Your task to perform on an android device: delete a single message in the gmail app Image 0: 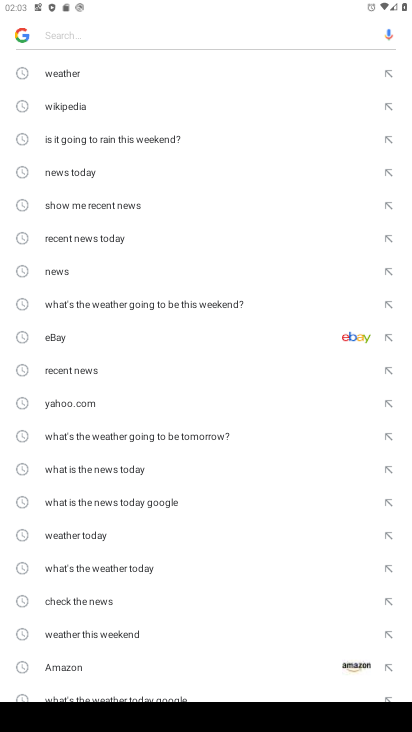
Step 0: press home button
Your task to perform on an android device: delete a single message in the gmail app Image 1: 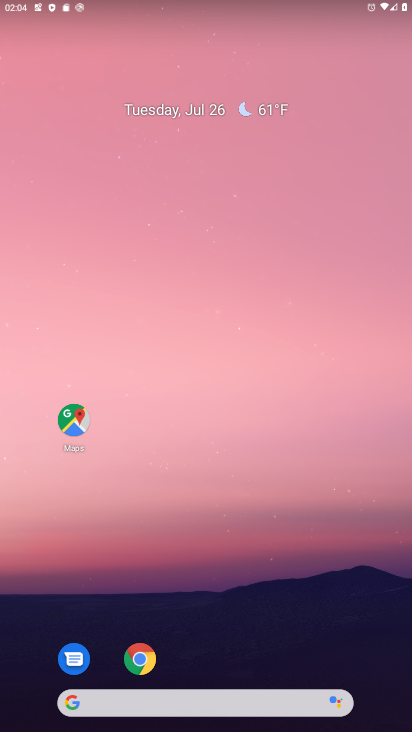
Step 1: drag from (309, 585) to (277, 102)
Your task to perform on an android device: delete a single message in the gmail app Image 2: 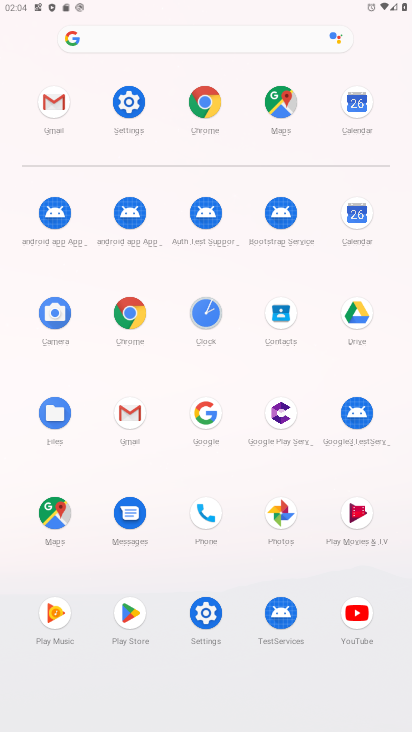
Step 2: click (43, 112)
Your task to perform on an android device: delete a single message in the gmail app Image 3: 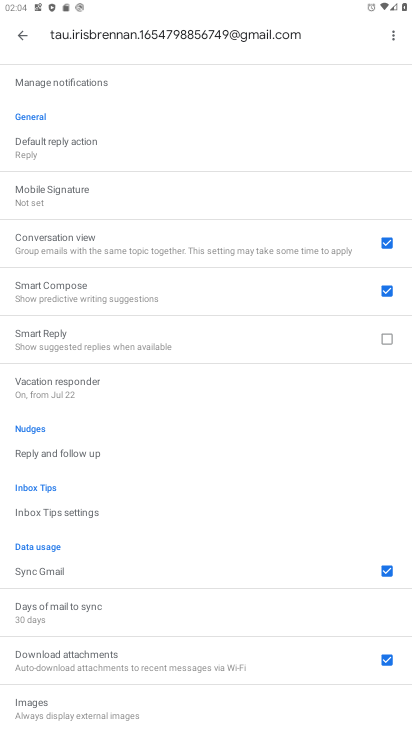
Step 3: click (21, 35)
Your task to perform on an android device: delete a single message in the gmail app Image 4: 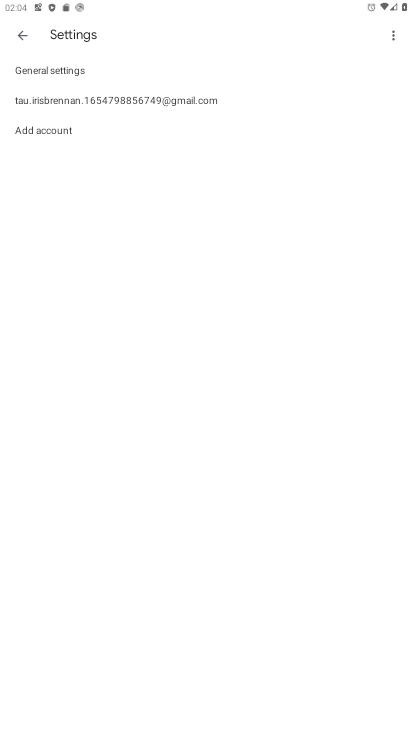
Step 4: click (22, 31)
Your task to perform on an android device: delete a single message in the gmail app Image 5: 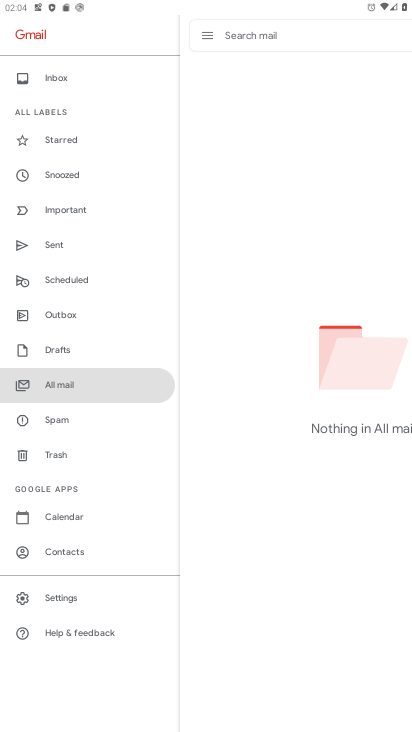
Step 5: task complete